Your task to perform on an android device: Open the web browser Image 0: 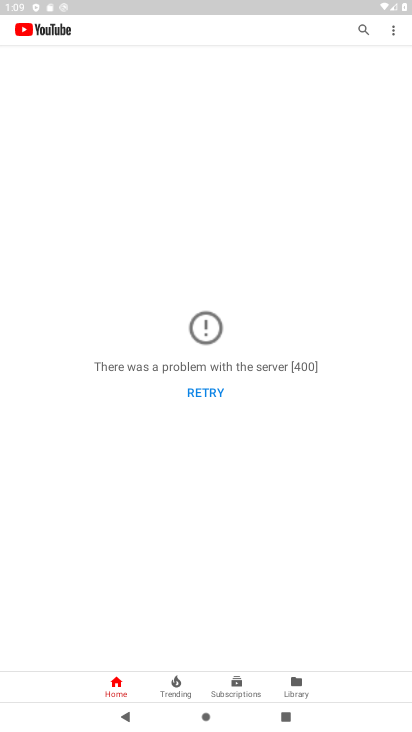
Step 0: press home button
Your task to perform on an android device: Open the web browser Image 1: 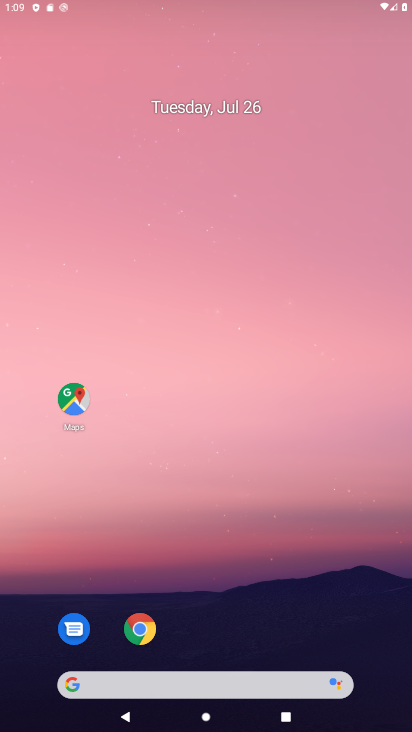
Step 1: drag from (312, 513) to (263, 29)
Your task to perform on an android device: Open the web browser Image 2: 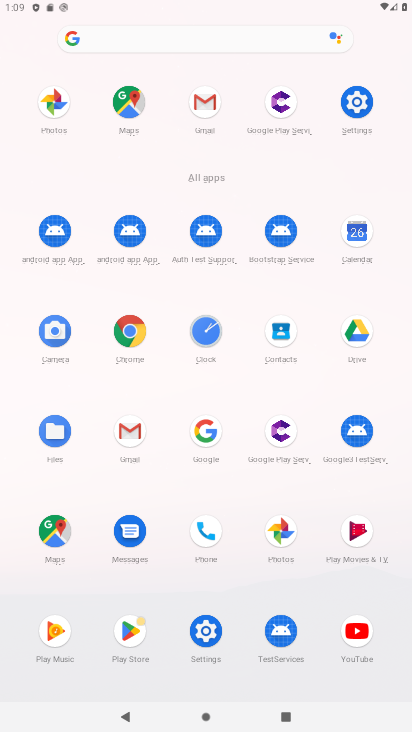
Step 2: click (130, 339)
Your task to perform on an android device: Open the web browser Image 3: 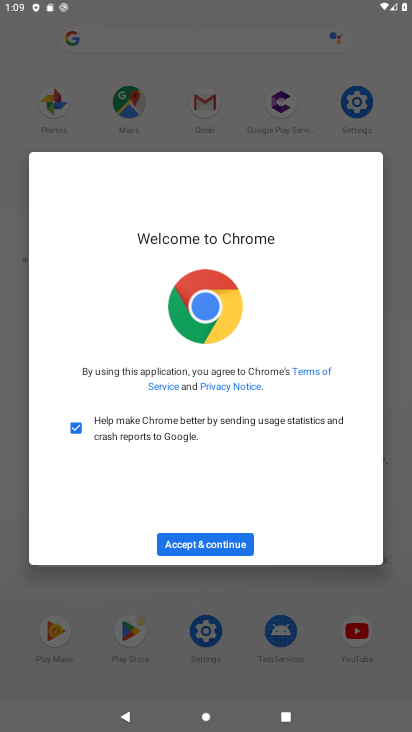
Step 3: click (218, 547)
Your task to perform on an android device: Open the web browser Image 4: 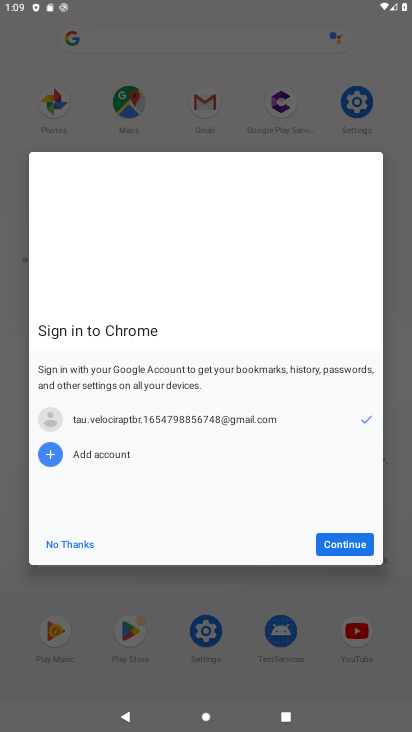
Step 4: click (75, 545)
Your task to perform on an android device: Open the web browser Image 5: 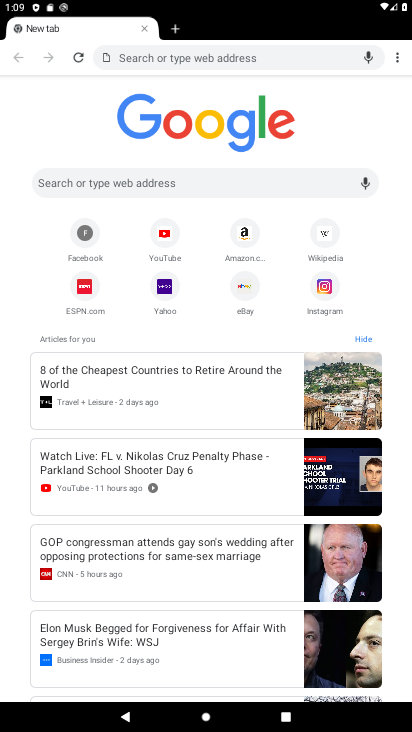
Step 5: task complete